Your task to perform on an android device: stop showing notifications on the lock screen Image 0: 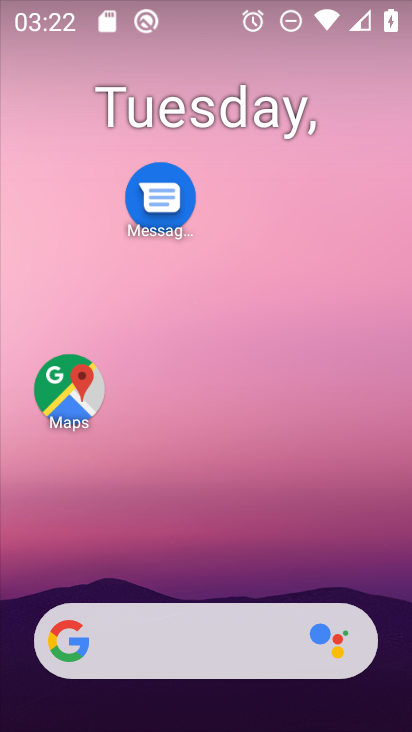
Step 0: drag from (219, 575) to (283, 216)
Your task to perform on an android device: stop showing notifications on the lock screen Image 1: 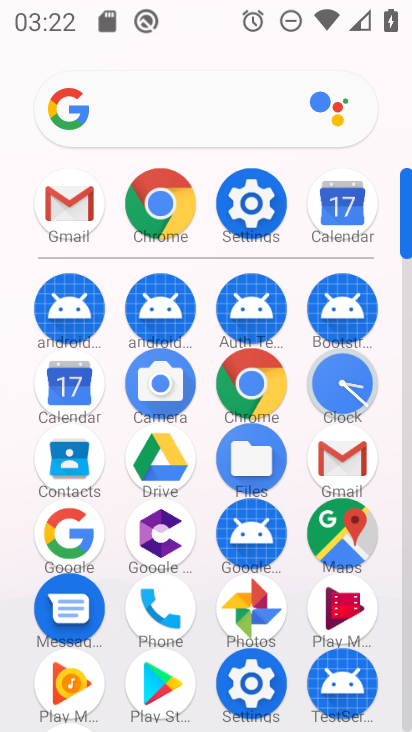
Step 1: click (272, 202)
Your task to perform on an android device: stop showing notifications on the lock screen Image 2: 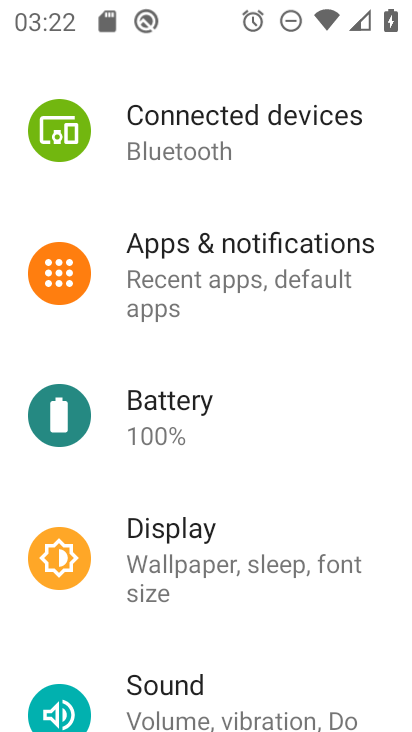
Step 2: click (232, 290)
Your task to perform on an android device: stop showing notifications on the lock screen Image 3: 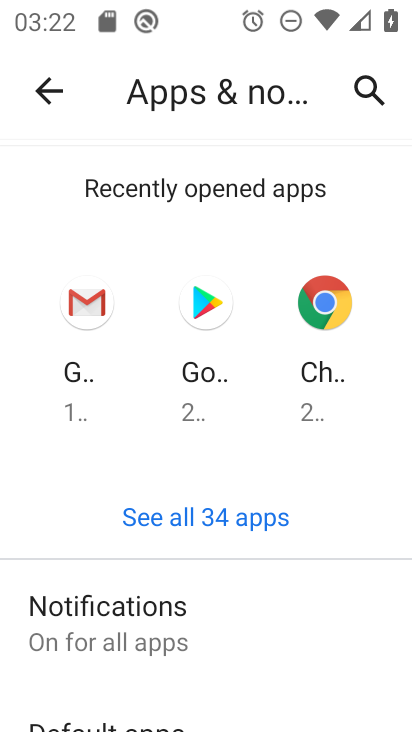
Step 3: click (227, 605)
Your task to perform on an android device: stop showing notifications on the lock screen Image 4: 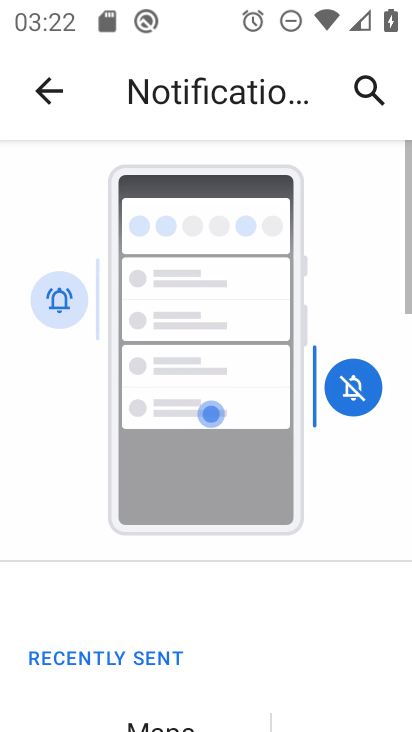
Step 4: drag from (229, 605) to (289, 272)
Your task to perform on an android device: stop showing notifications on the lock screen Image 5: 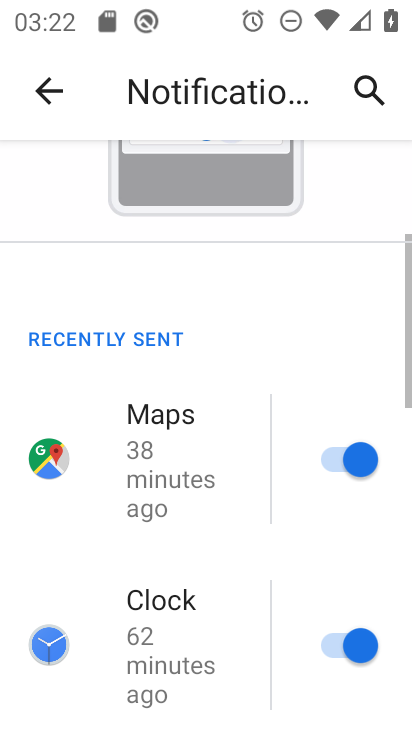
Step 5: drag from (251, 544) to (284, 276)
Your task to perform on an android device: stop showing notifications on the lock screen Image 6: 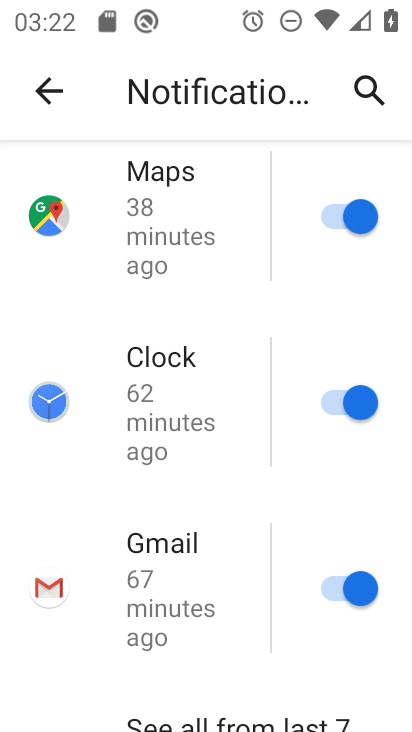
Step 6: drag from (228, 570) to (263, 297)
Your task to perform on an android device: stop showing notifications on the lock screen Image 7: 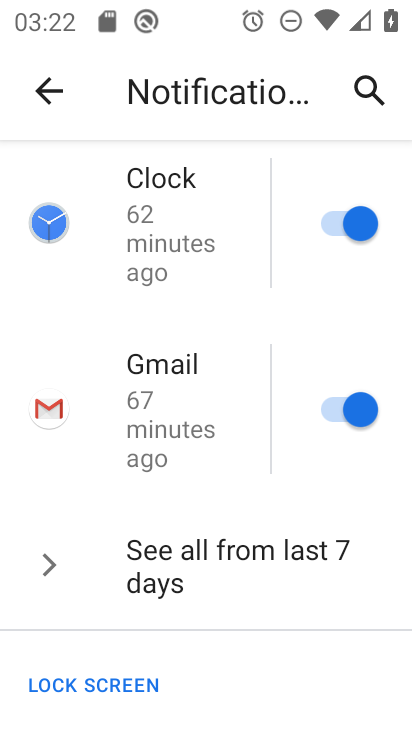
Step 7: drag from (245, 562) to (301, 366)
Your task to perform on an android device: stop showing notifications on the lock screen Image 8: 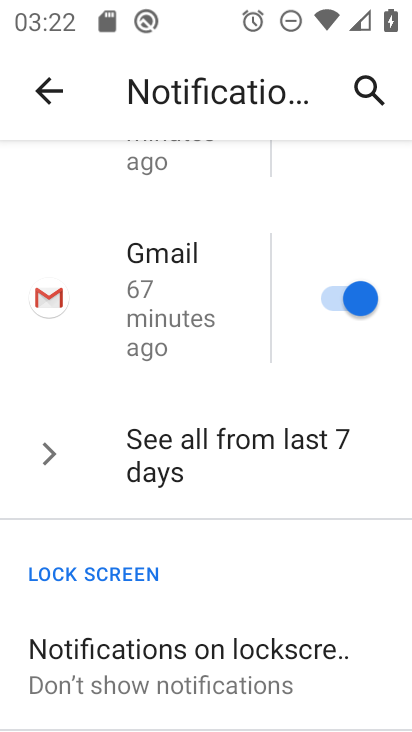
Step 8: click (261, 659)
Your task to perform on an android device: stop showing notifications on the lock screen Image 9: 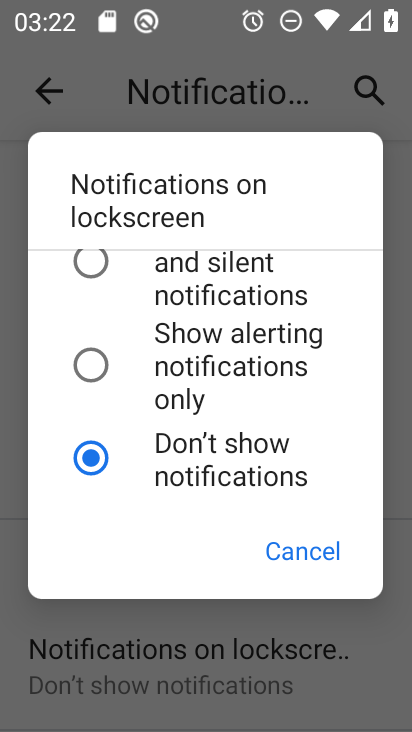
Step 9: task complete